Your task to perform on an android device: change the clock display to digital Image 0: 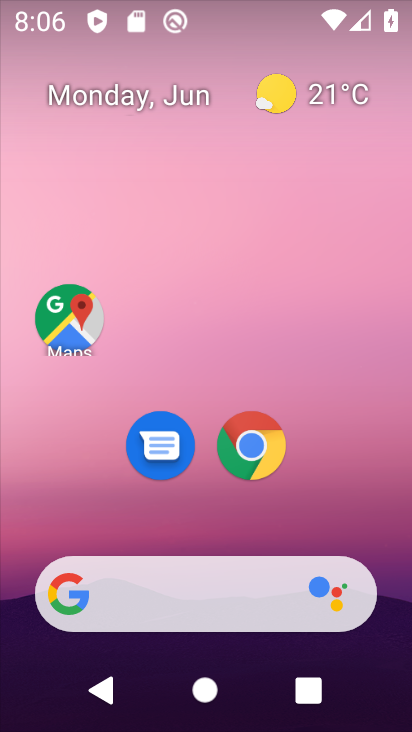
Step 0: drag from (209, 527) to (156, 33)
Your task to perform on an android device: change the clock display to digital Image 1: 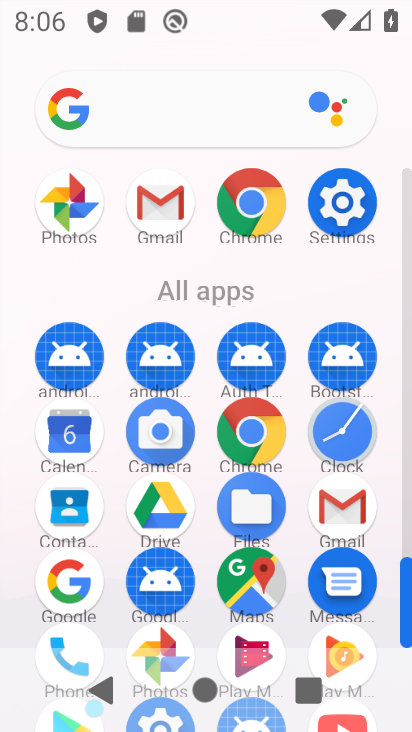
Step 1: click (331, 433)
Your task to perform on an android device: change the clock display to digital Image 2: 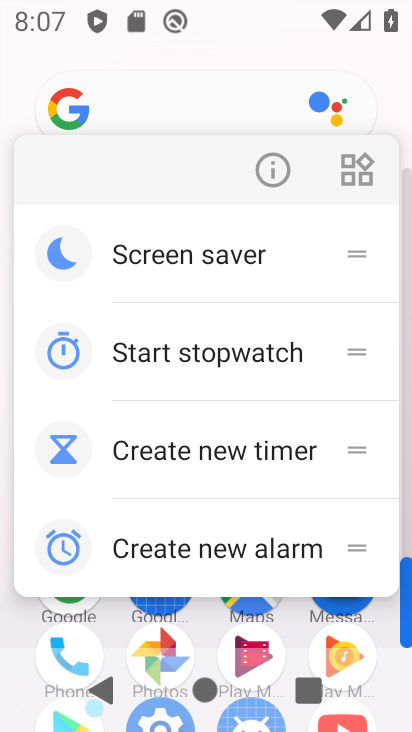
Step 2: click (411, 526)
Your task to perform on an android device: change the clock display to digital Image 3: 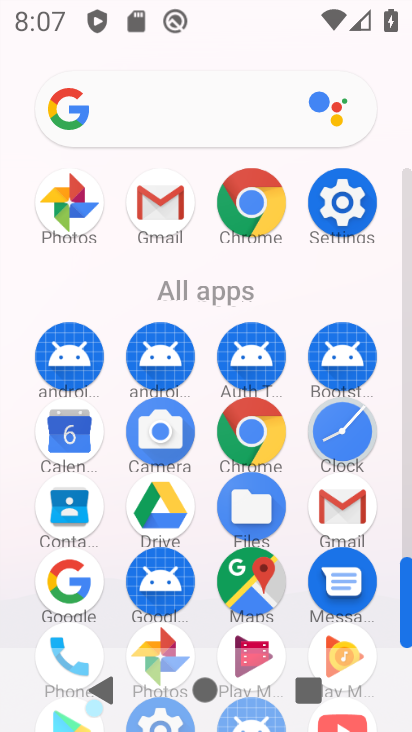
Step 3: click (327, 430)
Your task to perform on an android device: change the clock display to digital Image 4: 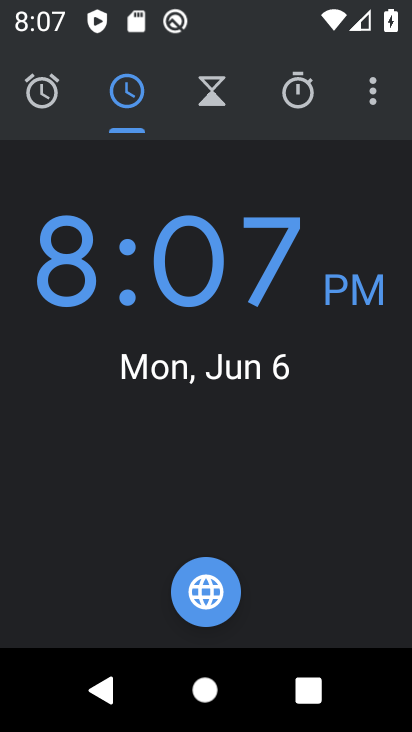
Step 4: click (364, 96)
Your task to perform on an android device: change the clock display to digital Image 5: 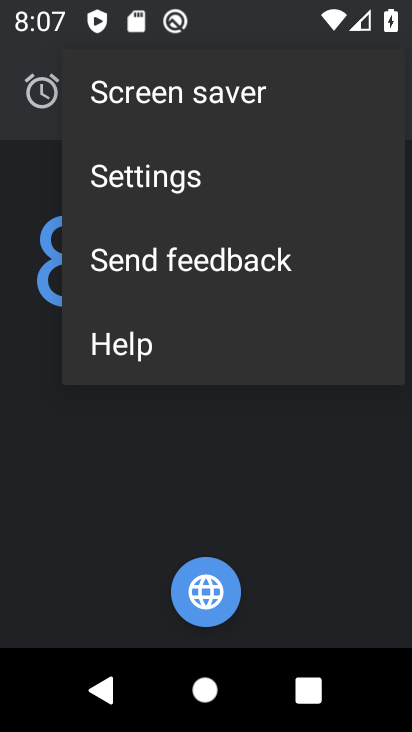
Step 5: click (201, 177)
Your task to perform on an android device: change the clock display to digital Image 6: 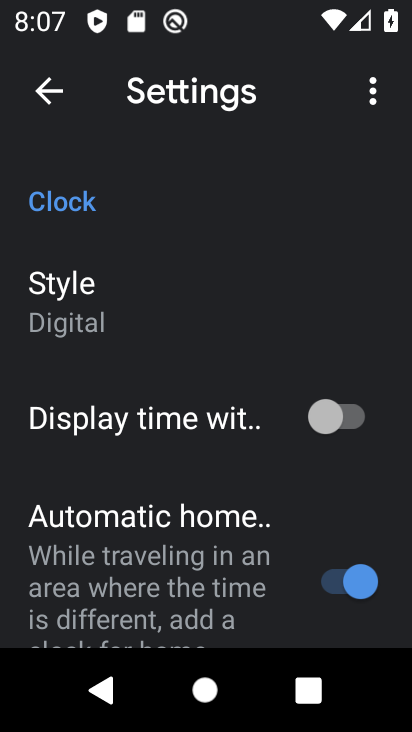
Step 6: click (115, 330)
Your task to perform on an android device: change the clock display to digital Image 7: 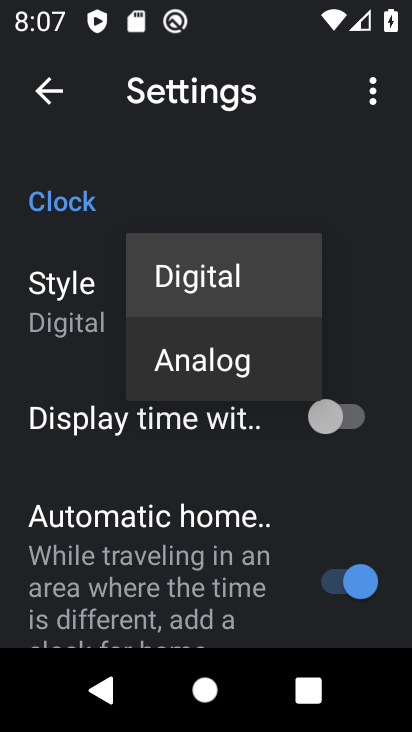
Step 7: click (250, 268)
Your task to perform on an android device: change the clock display to digital Image 8: 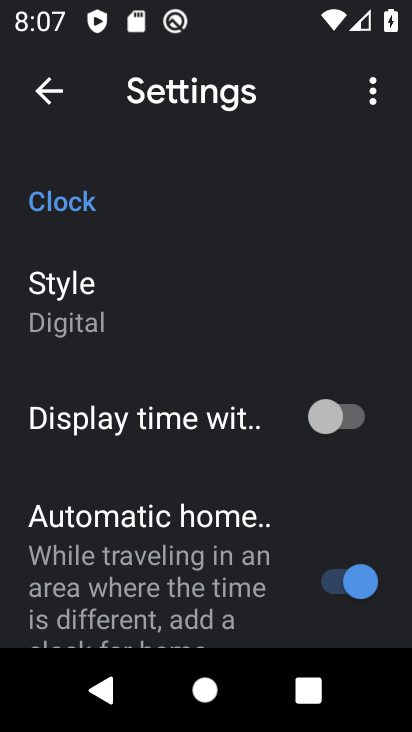
Step 8: task complete